Your task to perform on an android device: Open the Play Movies app and select the watchlist tab. Image 0: 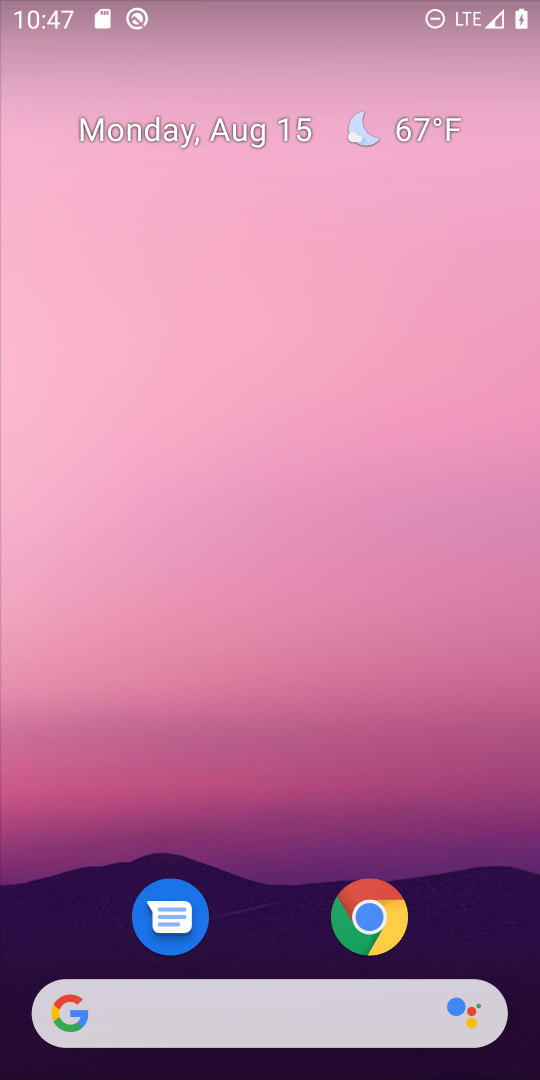
Step 0: drag from (286, 842) to (346, 0)
Your task to perform on an android device: Open the Play Movies app and select the watchlist tab. Image 1: 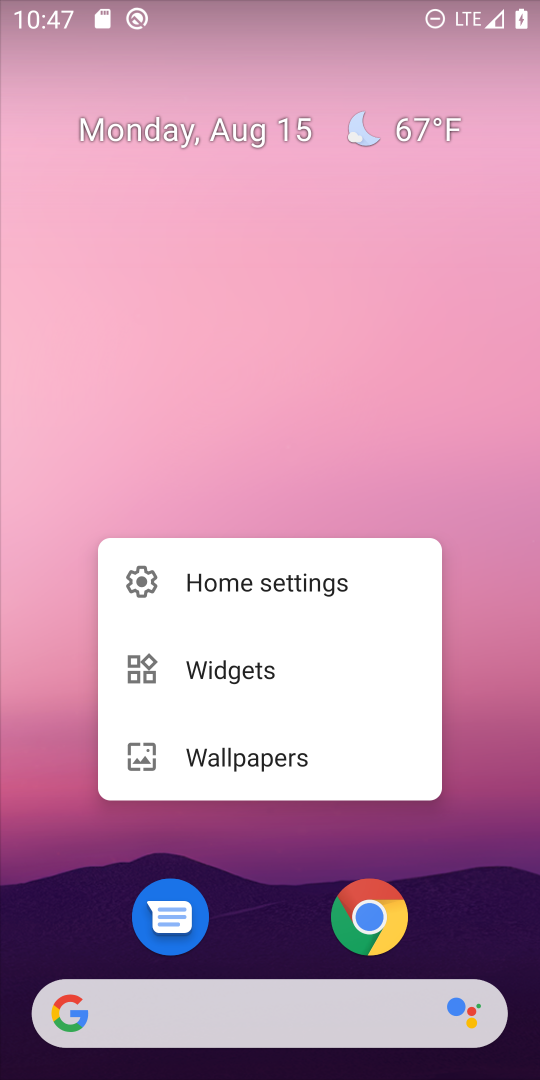
Step 1: click (356, 192)
Your task to perform on an android device: Open the Play Movies app and select the watchlist tab. Image 2: 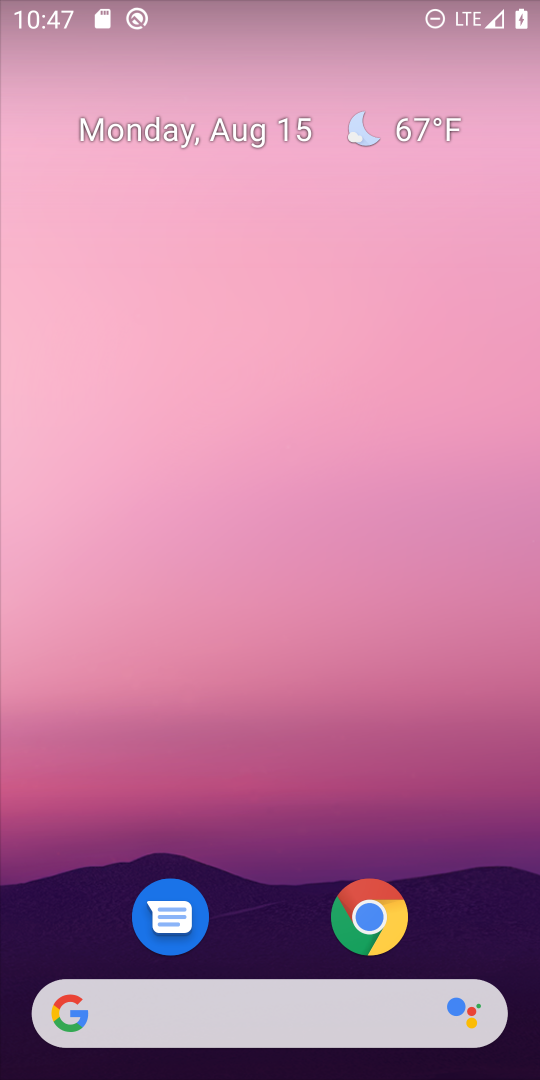
Step 2: drag from (282, 776) to (341, 1)
Your task to perform on an android device: Open the Play Movies app and select the watchlist tab. Image 3: 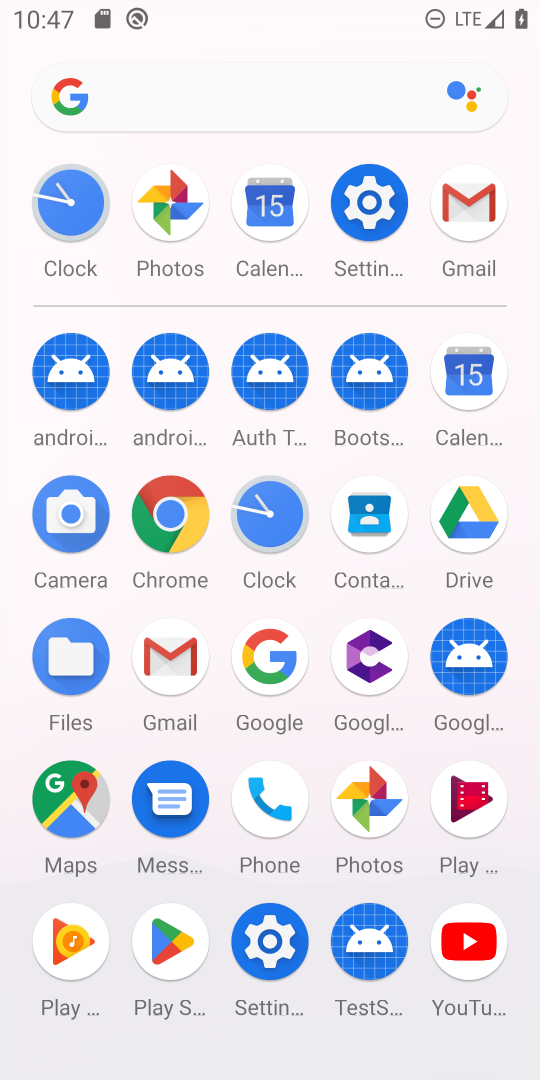
Step 3: click (470, 795)
Your task to perform on an android device: Open the Play Movies app and select the watchlist tab. Image 4: 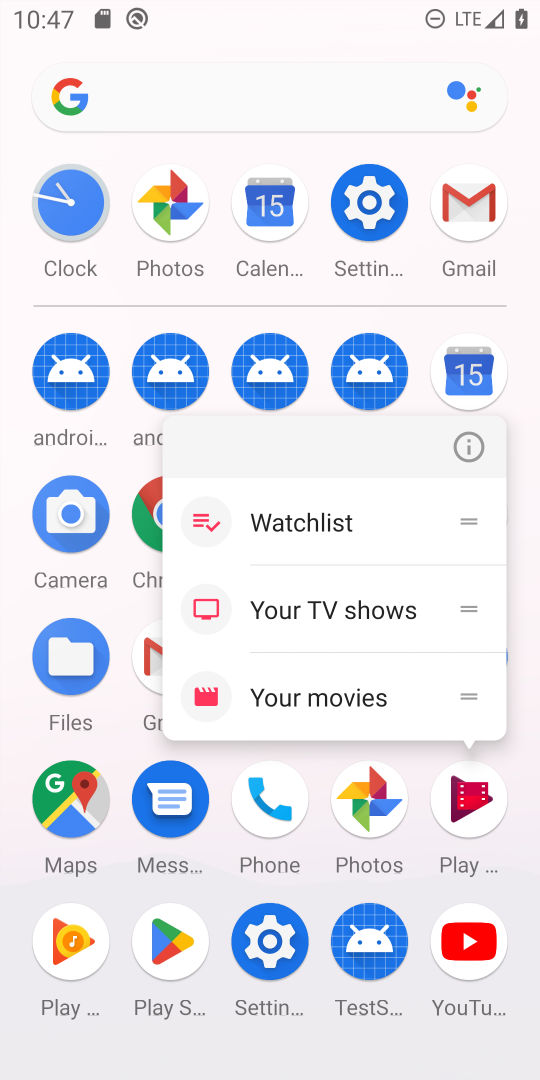
Step 4: click (471, 802)
Your task to perform on an android device: Open the Play Movies app and select the watchlist tab. Image 5: 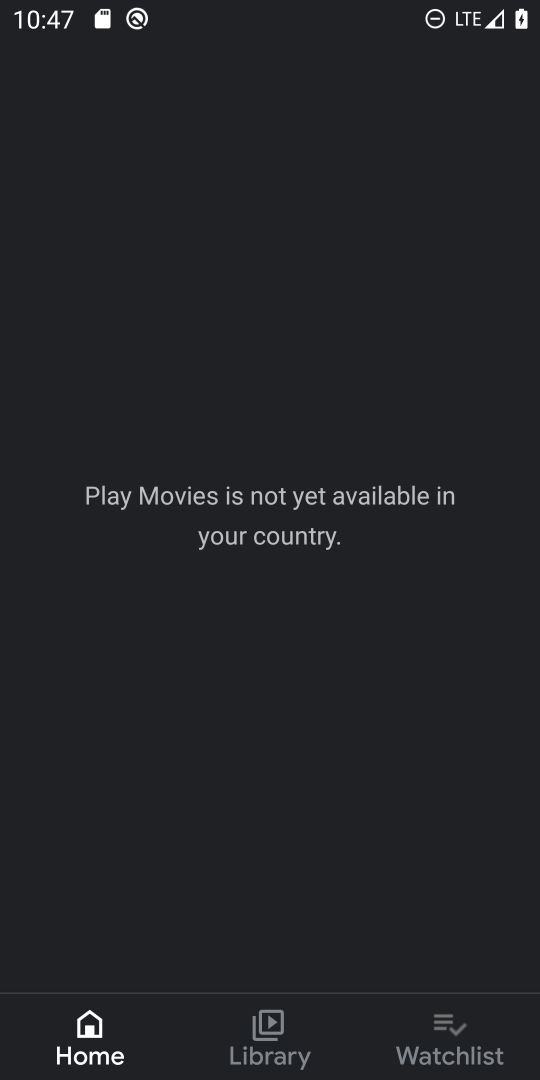
Step 5: click (463, 1050)
Your task to perform on an android device: Open the Play Movies app and select the watchlist tab. Image 6: 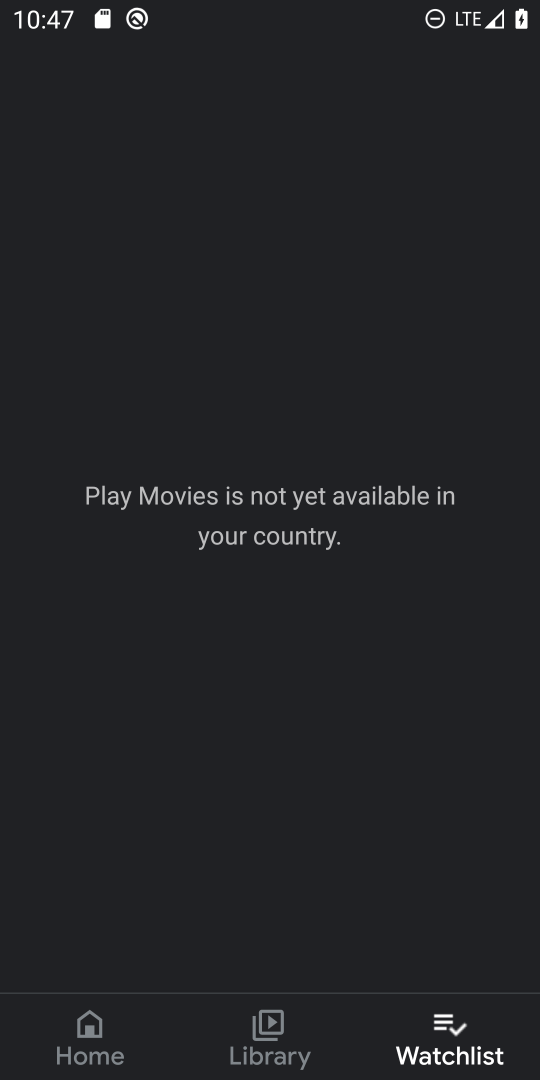
Step 6: task complete